Your task to perform on an android device: Do I have any events today? Image 0: 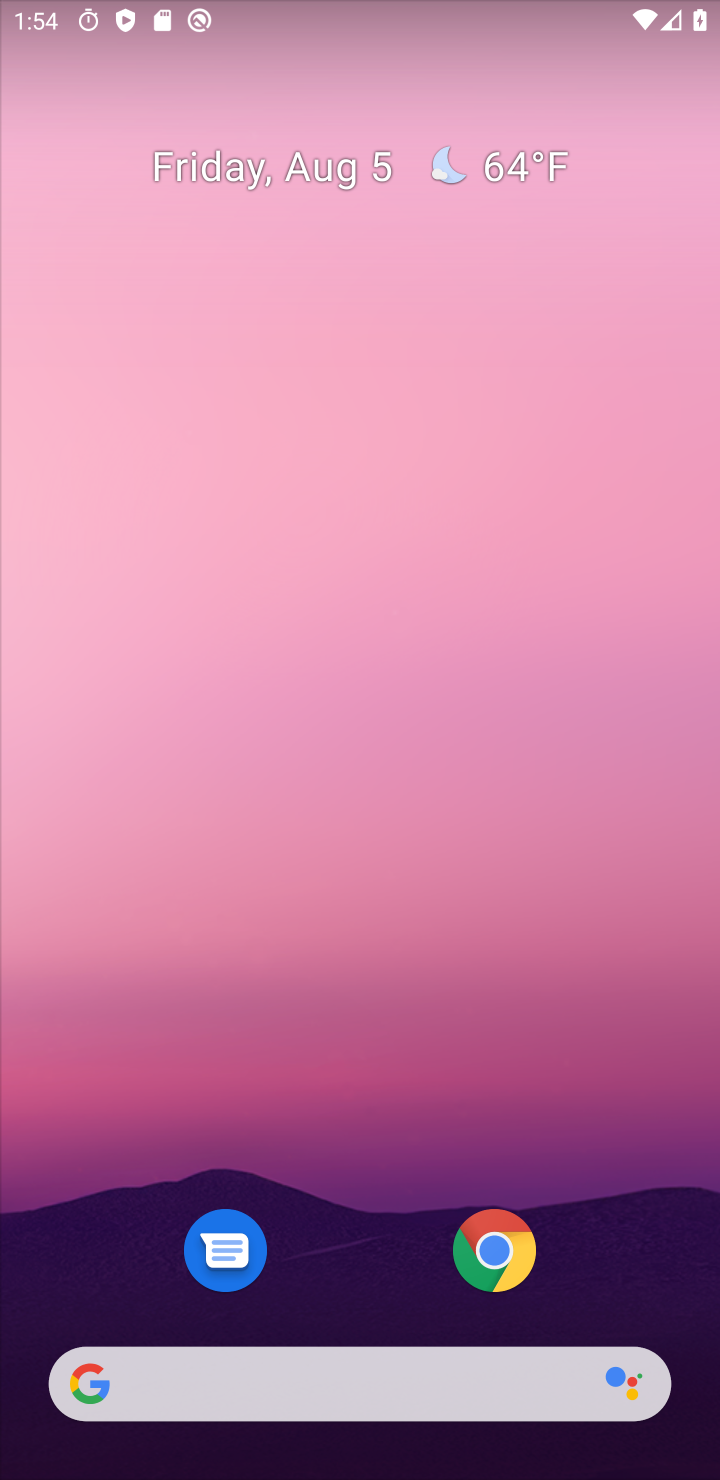
Step 0: drag from (332, 1252) to (372, 260)
Your task to perform on an android device: Do I have any events today? Image 1: 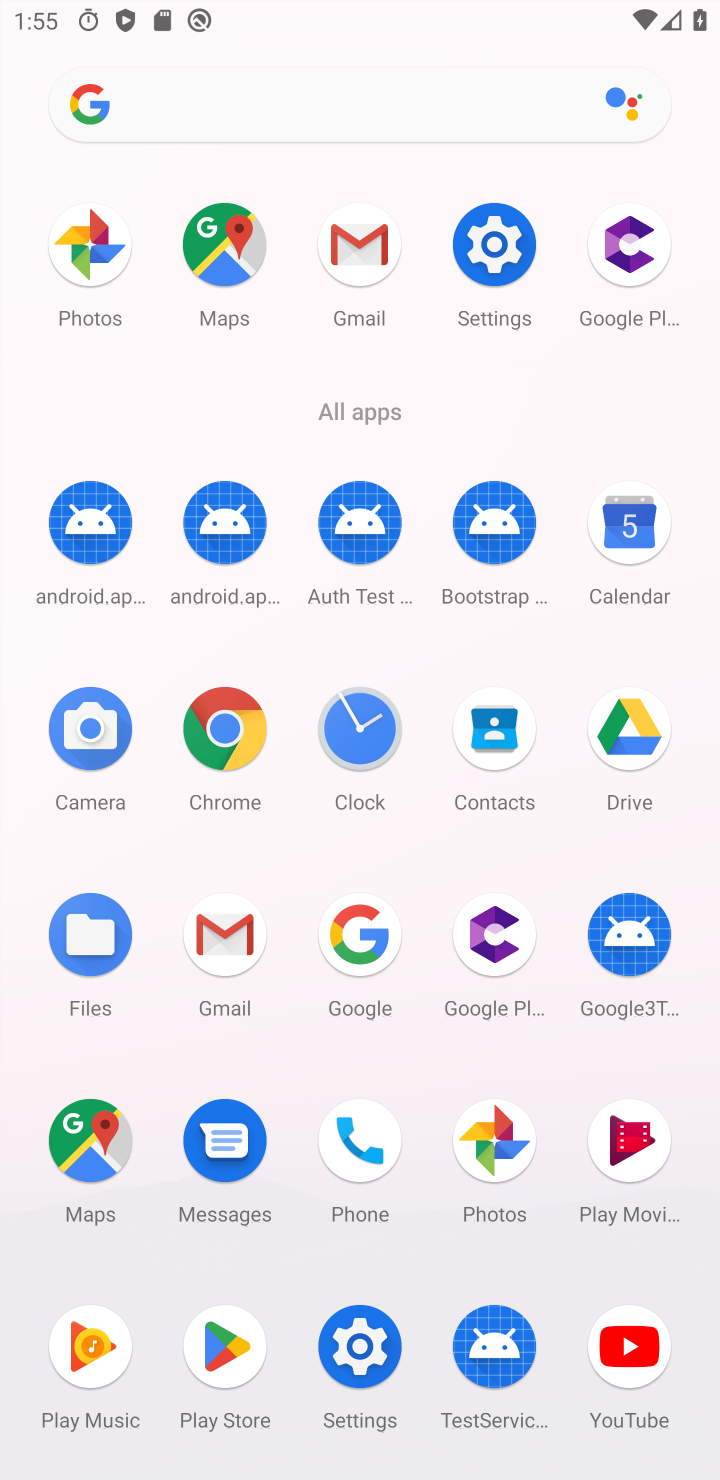
Step 1: click (613, 537)
Your task to perform on an android device: Do I have any events today? Image 2: 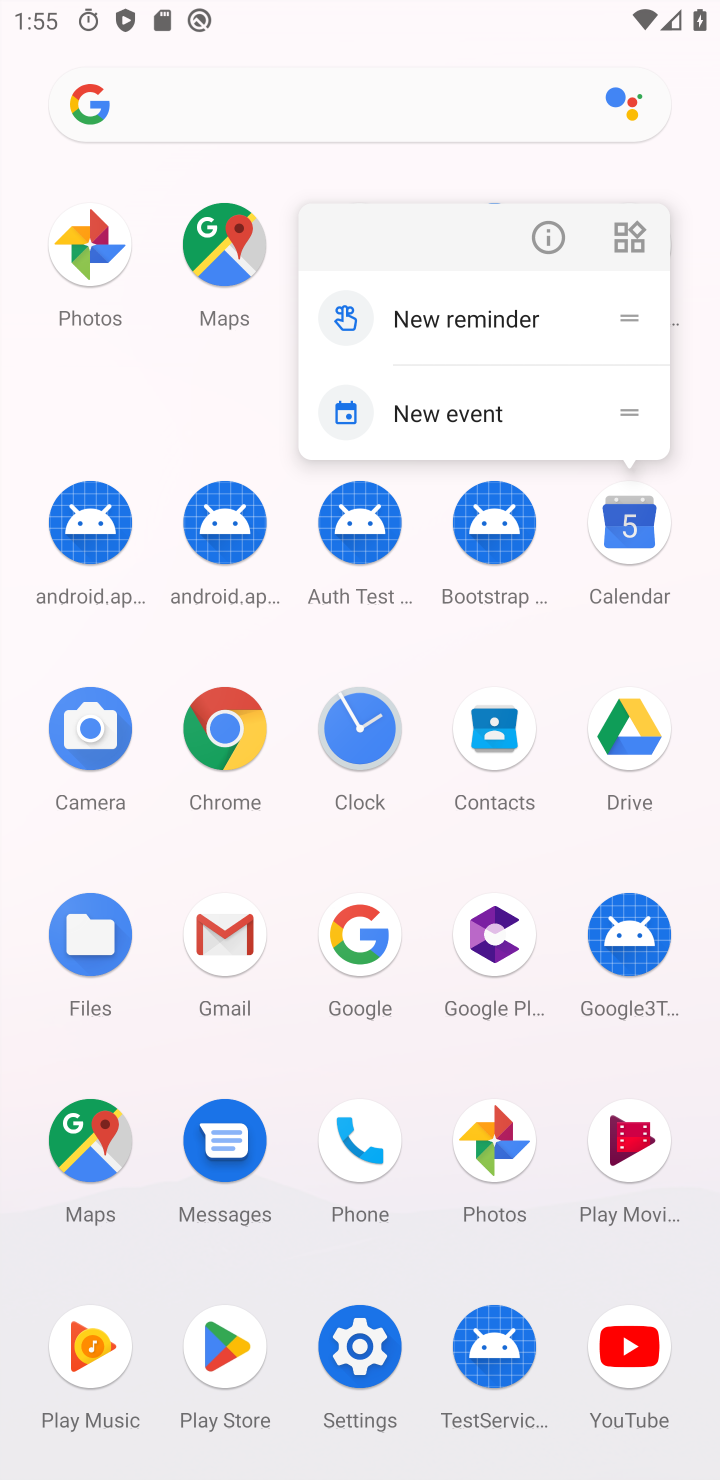
Step 2: click (547, 235)
Your task to perform on an android device: Do I have any events today? Image 3: 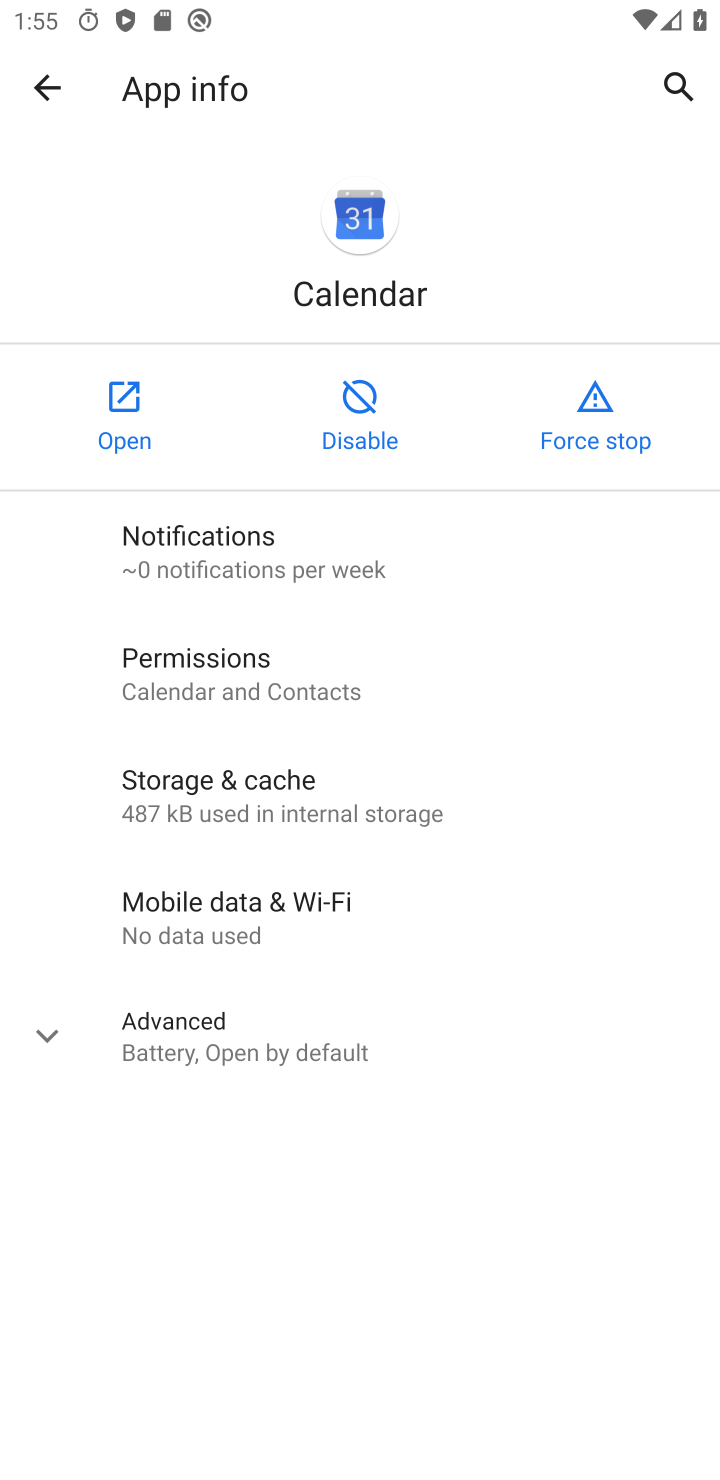
Step 3: click (118, 424)
Your task to perform on an android device: Do I have any events today? Image 4: 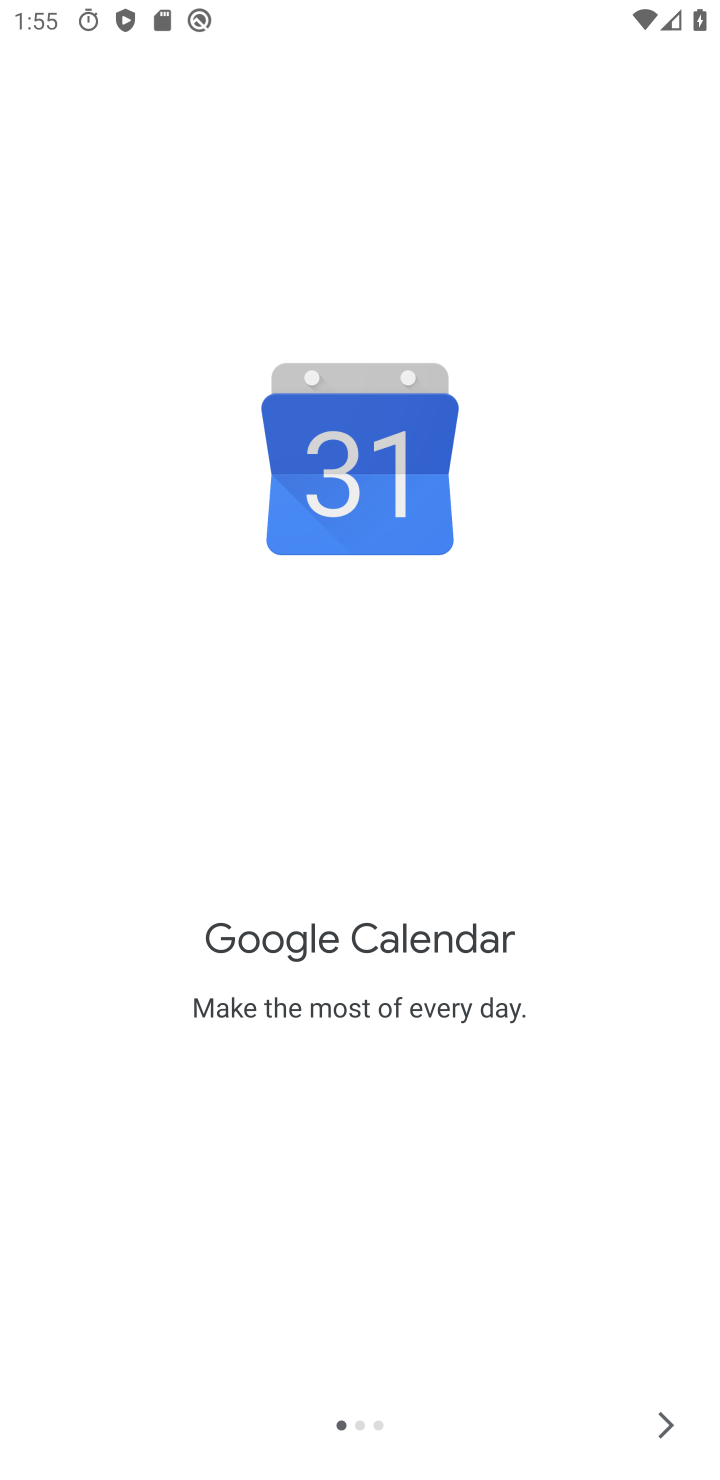
Step 4: click (665, 1434)
Your task to perform on an android device: Do I have any events today? Image 5: 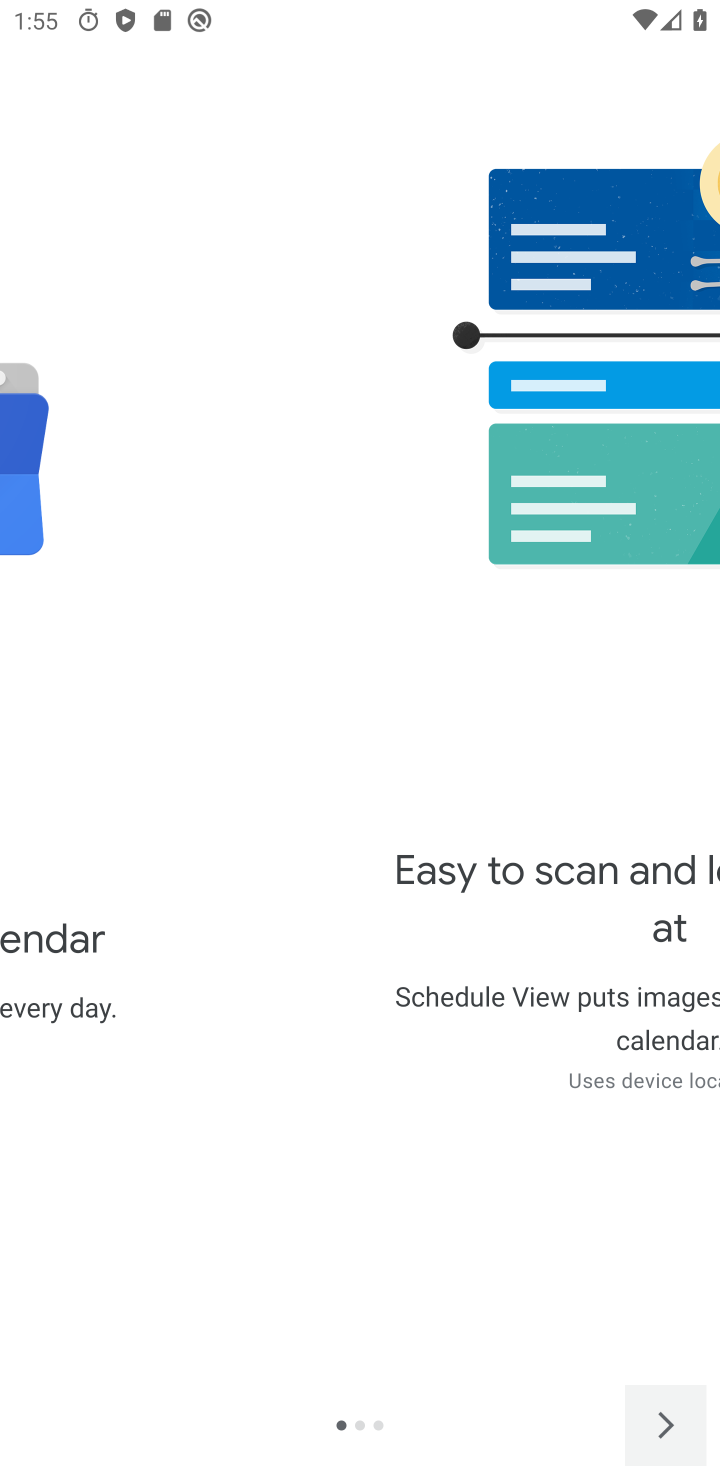
Step 5: click (665, 1434)
Your task to perform on an android device: Do I have any events today? Image 6: 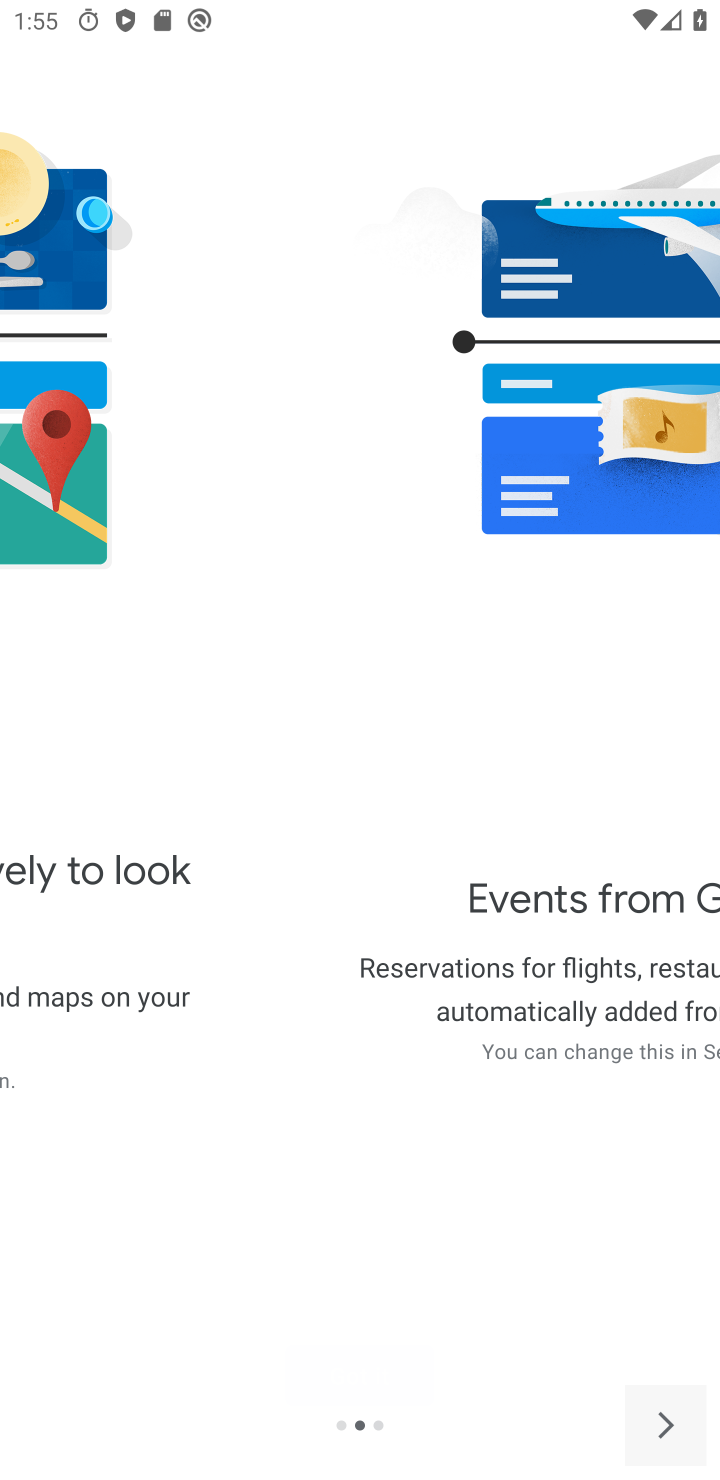
Step 6: click (663, 1421)
Your task to perform on an android device: Do I have any events today? Image 7: 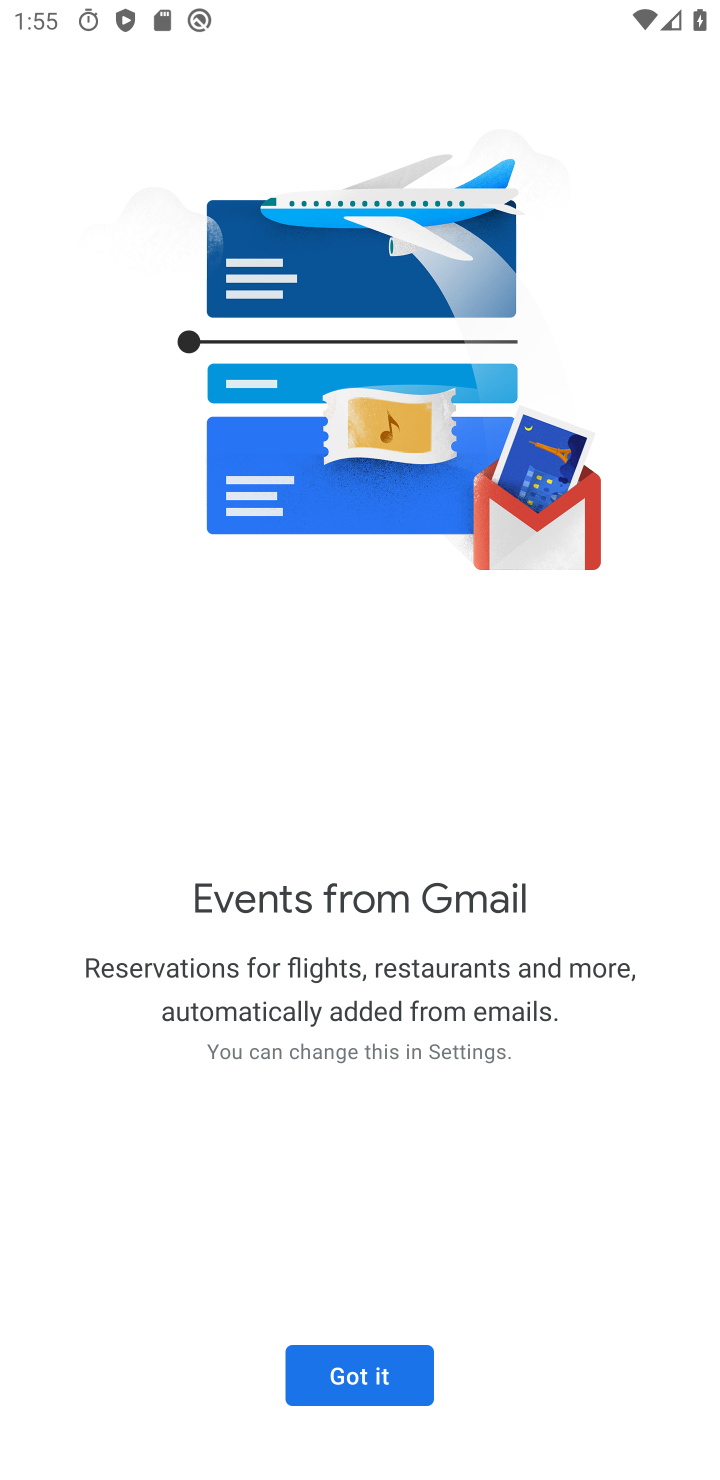
Step 7: click (391, 1365)
Your task to perform on an android device: Do I have any events today? Image 8: 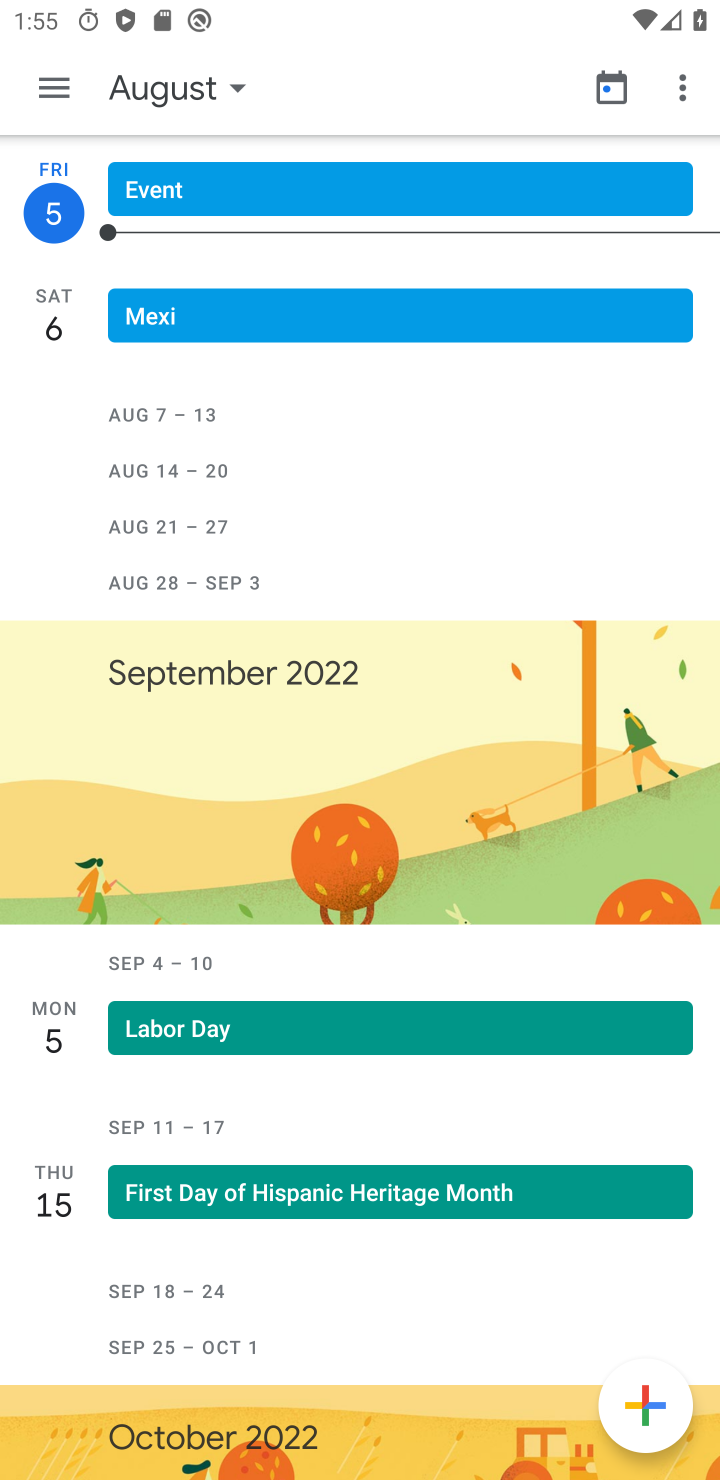
Step 8: drag from (311, 1328) to (377, 701)
Your task to perform on an android device: Do I have any events today? Image 9: 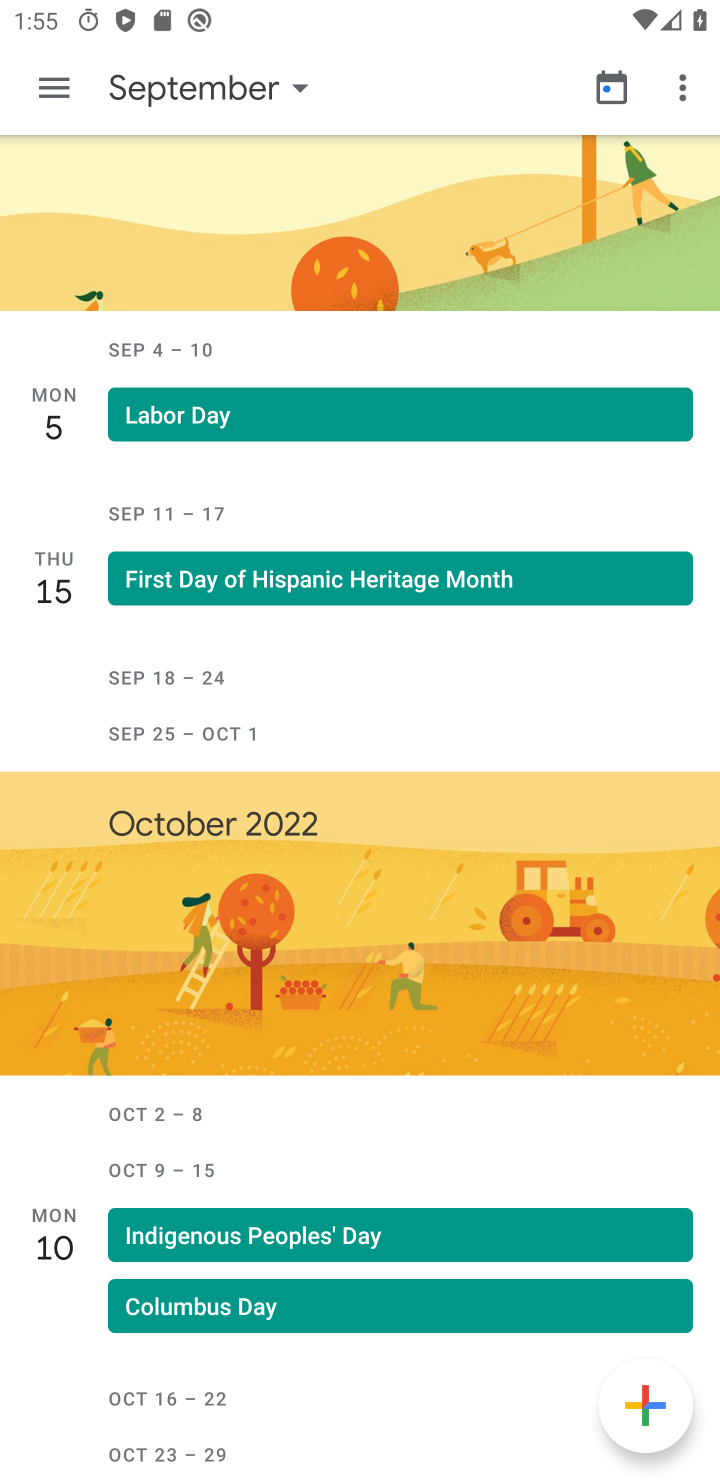
Step 9: click (613, 81)
Your task to perform on an android device: Do I have any events today? Image 10: 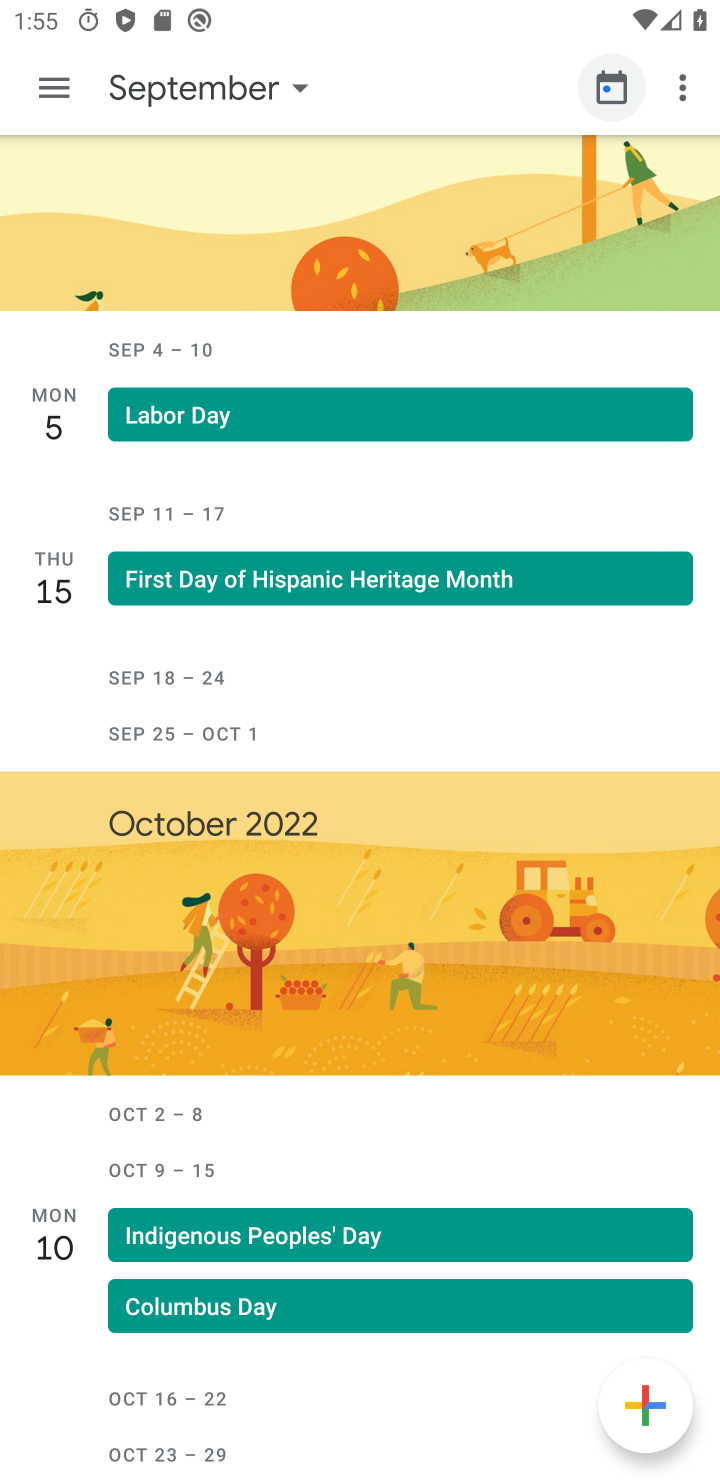
Step 10: click (221, 94)
Your task to perform on an android device: Do I have any events today? Image 11: 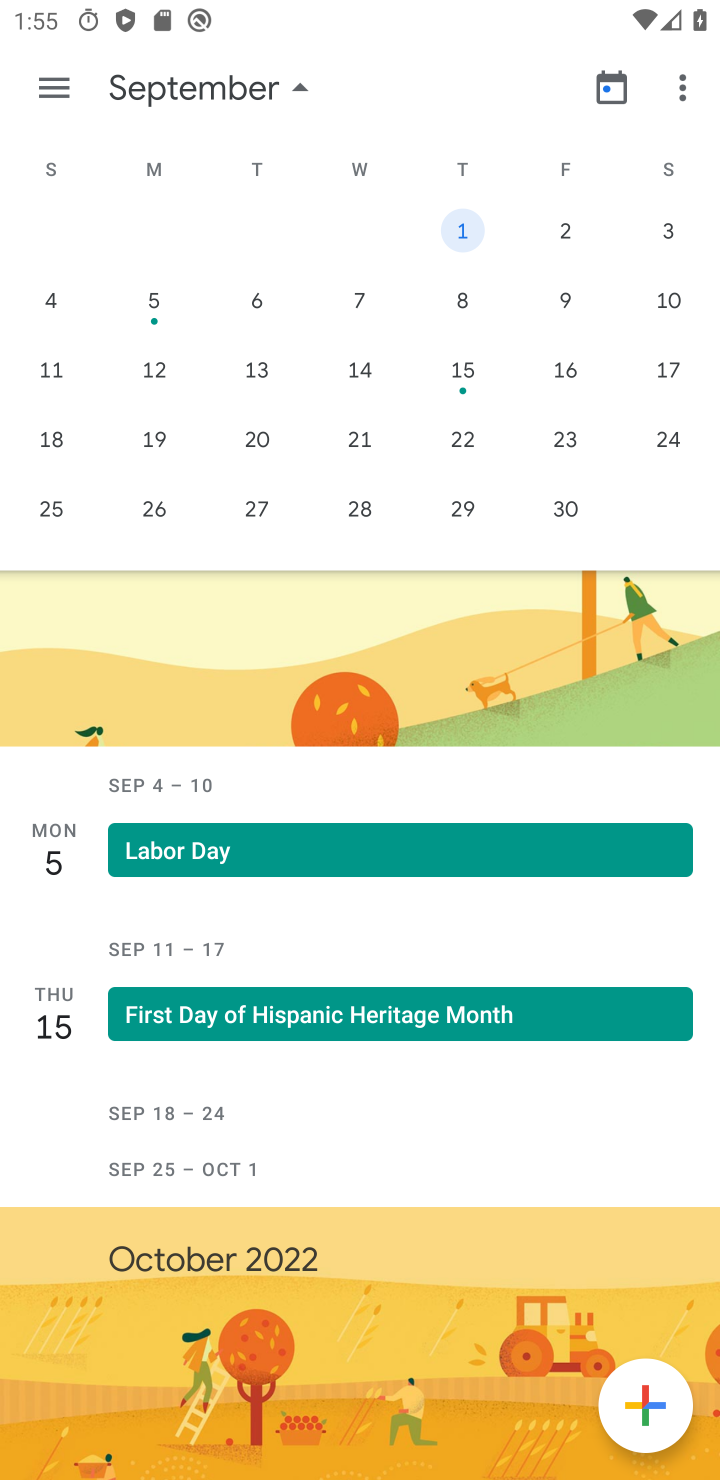
Step 11: click (609, 86)
Your task to perform on an android device: Do I have any events today? Image 12: 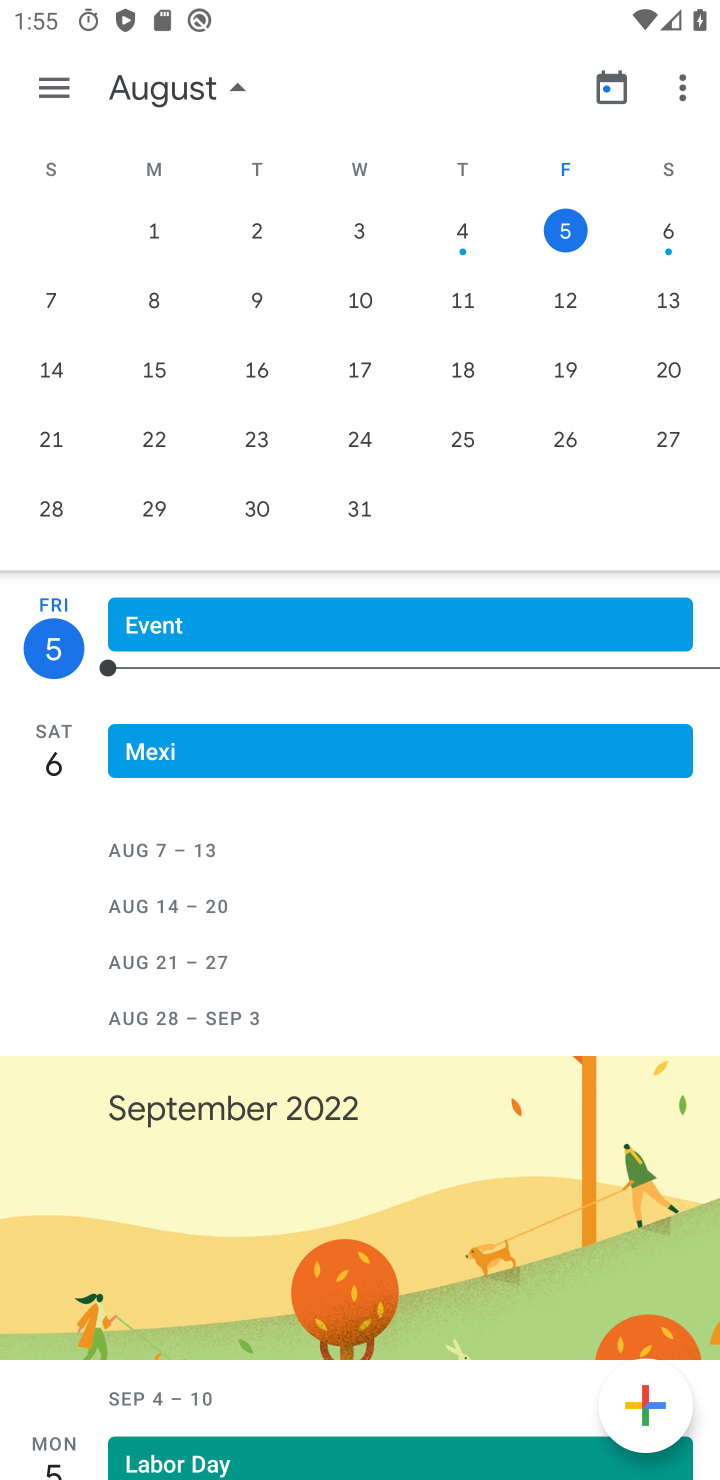
Step 12: click (574, 237)
Your task to perform on an android device: Do I have any events today? Image 13: 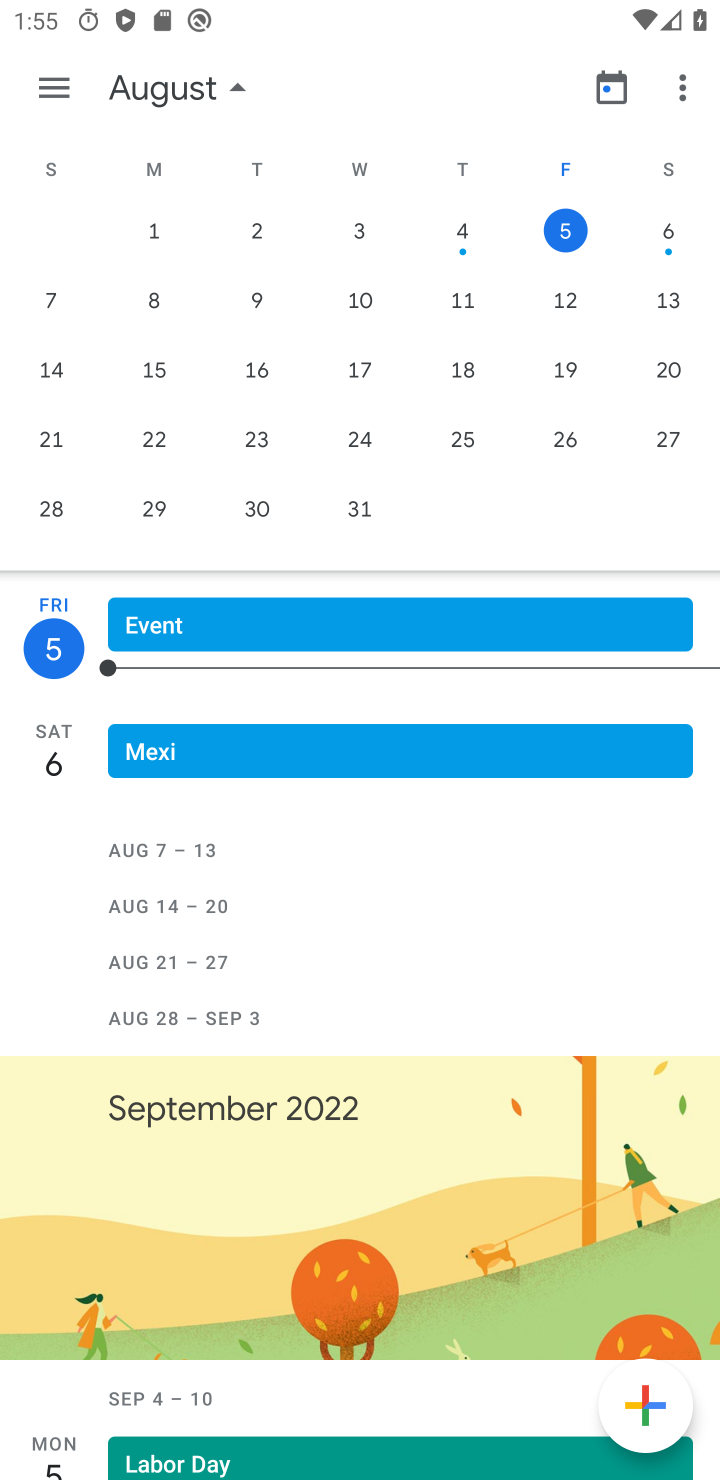
Step 13: task complete